Your task to perform on an android device: Show me popular videos on Youtube Image 0: 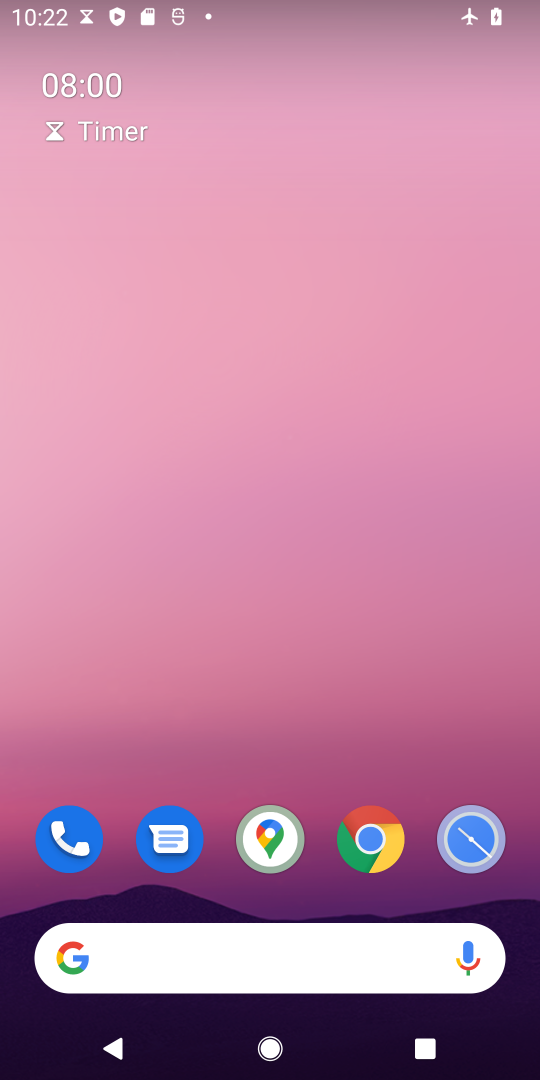
Step 0: drag from (163, 904) to (236, 2)
Your task to perform on an android device: Show me popular videos on Youtube Image 1: 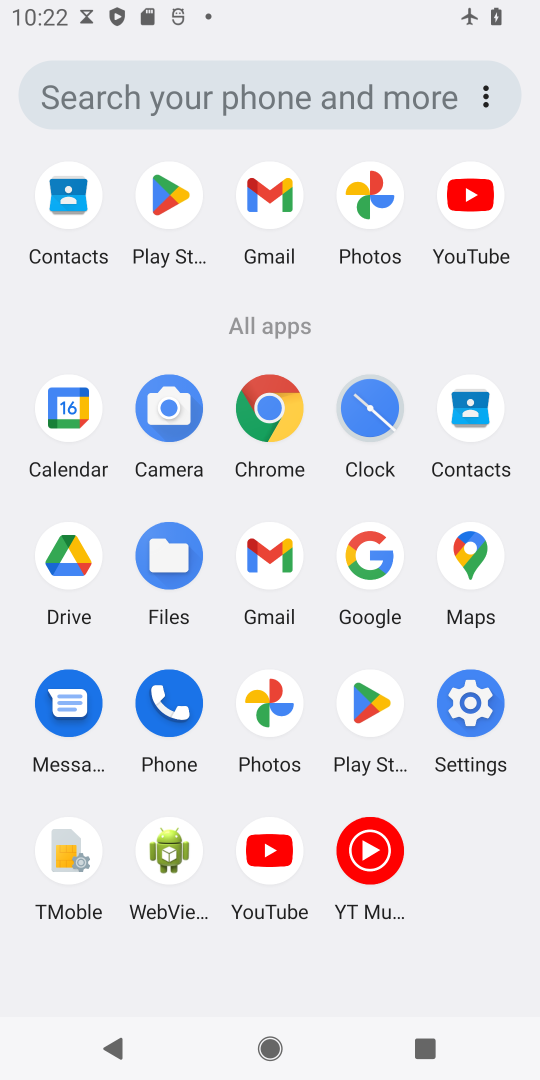
Step 1: click (478, 240)
Your task to perform on an android device: Show me popular videos on Youtube Image 2: 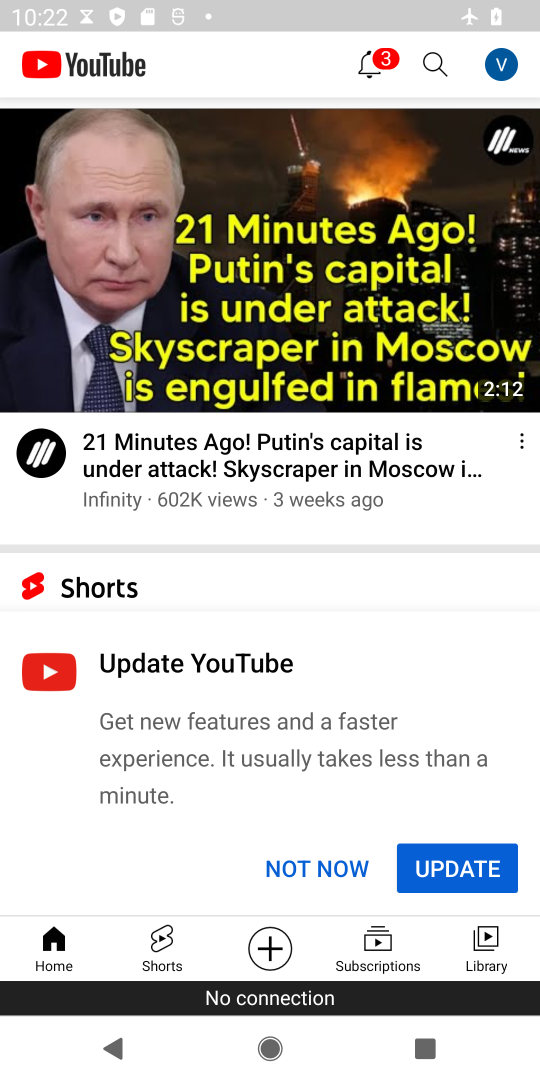
Step 2: click (297, 866)
Your task to perform on an android device: Show me popular videos on Youtube Image 3: 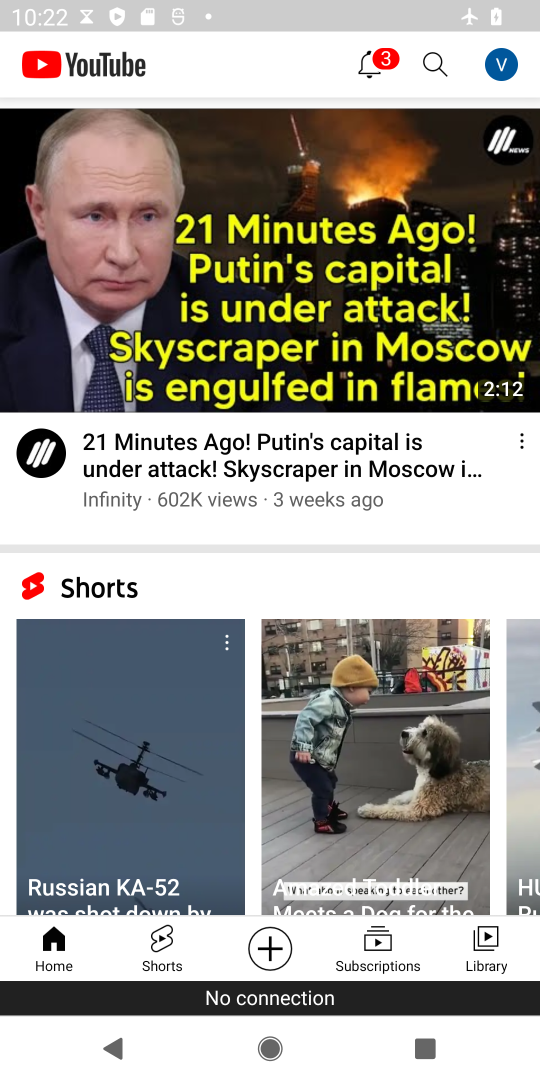
Step 3: drag from (235, 437) to (226, 1075)
Your task to perform on an android device: Show me popular videos on Youtube Image 4: 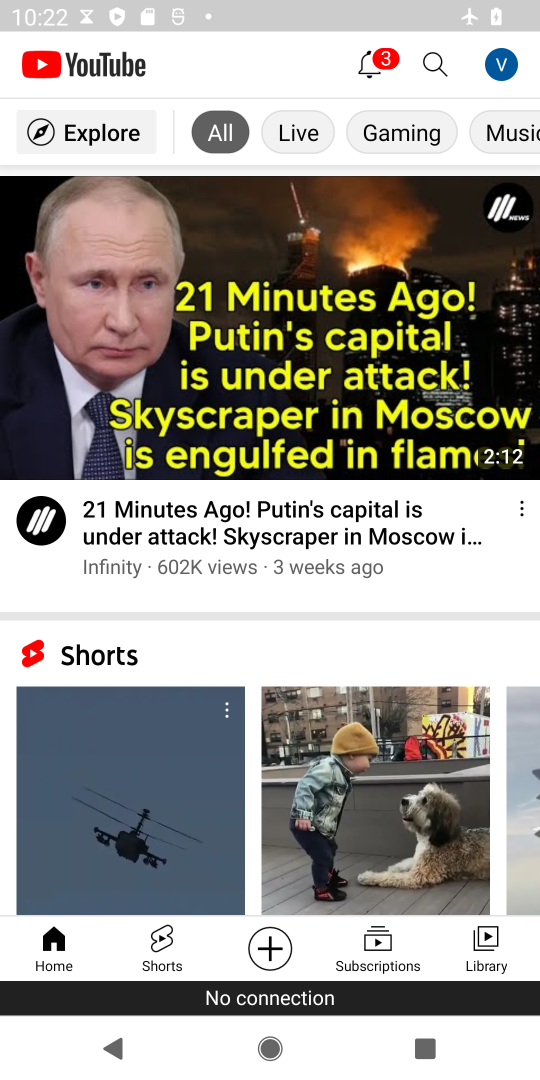
Step 4: click (103, 137)
Your task to perform on an android device: Show me popular videos on Youtube Image 5: 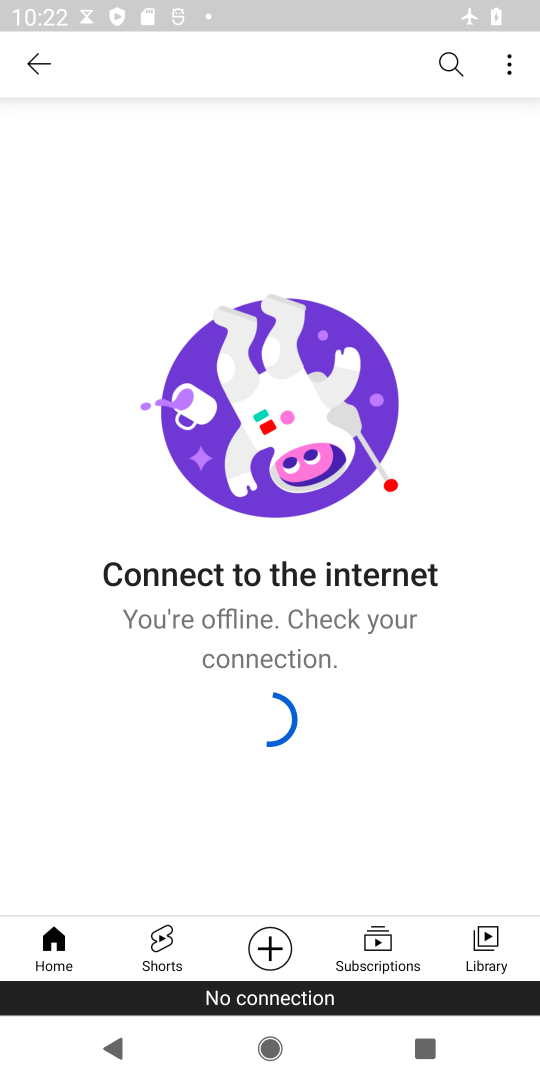
Step 5: task complete